Your task to perform on an android device: toggle airplane mode Image 0: 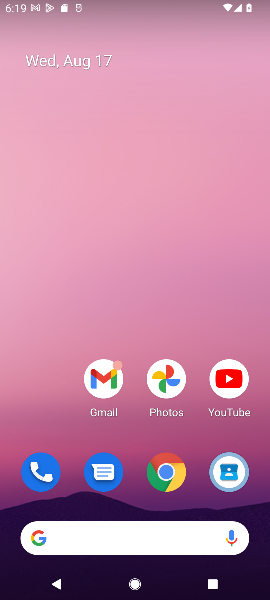
Step 0: drag from (36, 392) to (121, 1)
Your task to perform on an android device: toggle airplane mode Image 1: 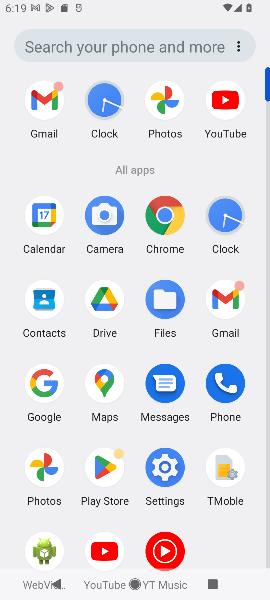
Step 1: click (164, 466)
Your task to perform on an android device: toggle airplane mode Image 2: 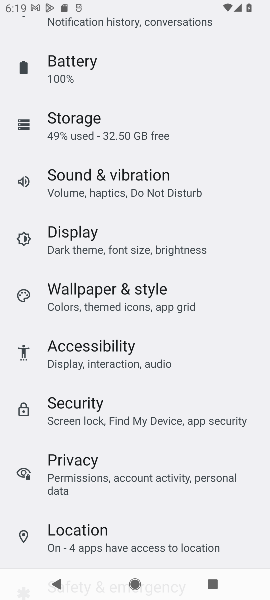
Step 2: drag from (149, 109) to (126, 497)
Your task to perform on an android device: toggle airplane mode Image 3: 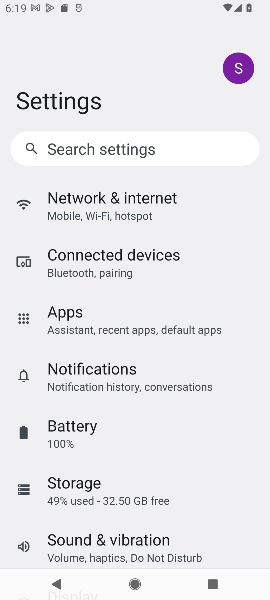
Step 3: click (160, 208)
Your task to perform on an android device: toggle airplane mode Image 4: 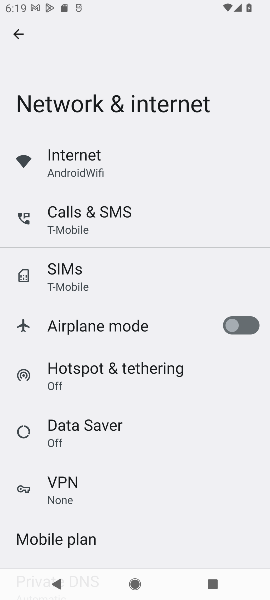
Step 4: click (241, 321)
Your task to perform on an android device: toggle airplane mode Image 5: 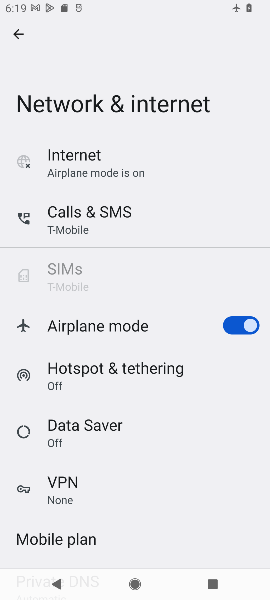
Step 5: task complete